Your task to perform on an android device: empty trash in the gmail app Image 0: 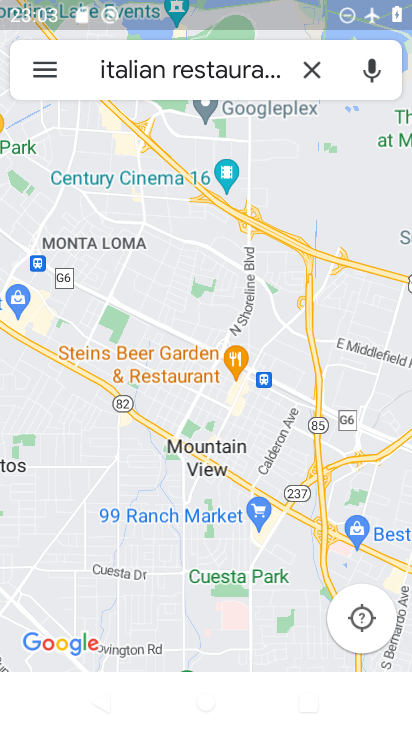
Step 0: press home button
Your task to perform on an android device: empty trash in the gmail app Image 1: 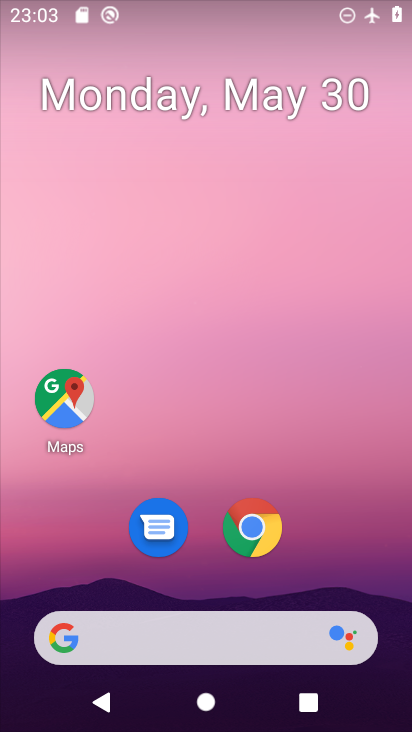
Step 1: drag from (219, 551) to (224, 225)
Your task to perform on an android device: empty trash in the gmail app Image 2: 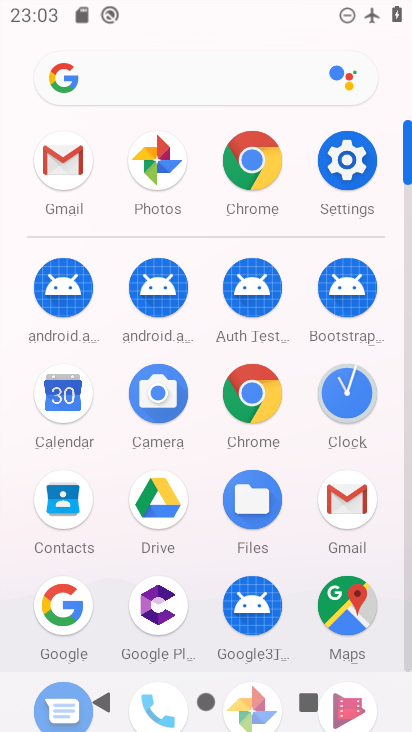
Step 2: click (342, 489)
Your task to perform on an android device: empty trash in the gmail app Image 3: 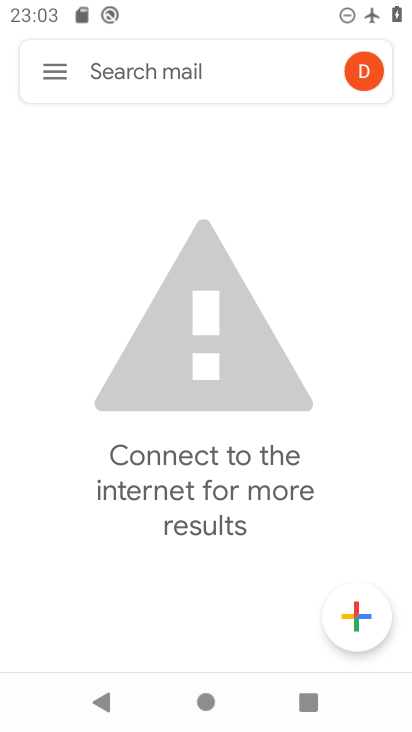
Step 3: click (40, 69)
Your task to perform on an android device: empty trash in the gmail app Image 4: 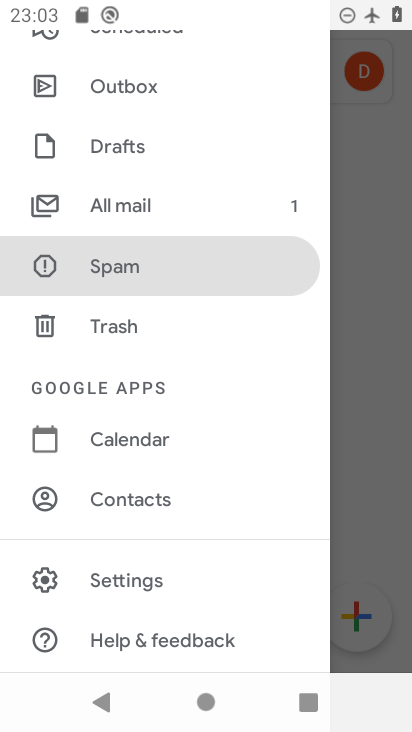
Step 4: click (141, 320)
Your task to perform on an android device: empty trash in the gmail app Image 5: 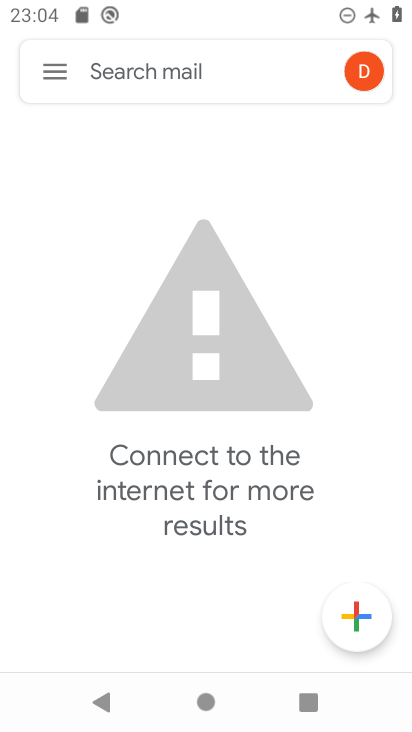
Step 5: task complete